Your task to perform on an android device: What's the top post on reddit today? Image 0: 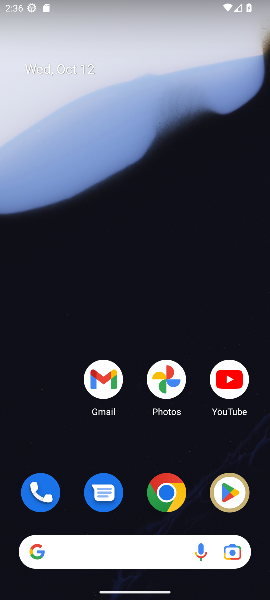
Step 0: click (165, 500)
Your task to perform on an android device: What's the top post on reddit today? Image 1: 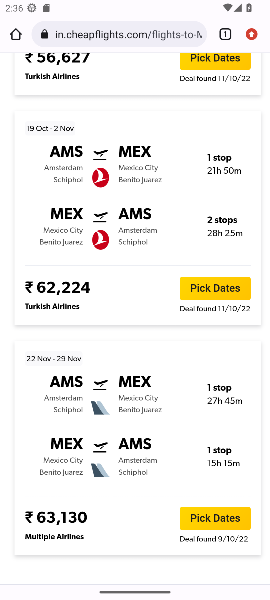
Step 1: click (99, 31)
Your task to perform on an android device: What's the top post on reddit today? Image 2: 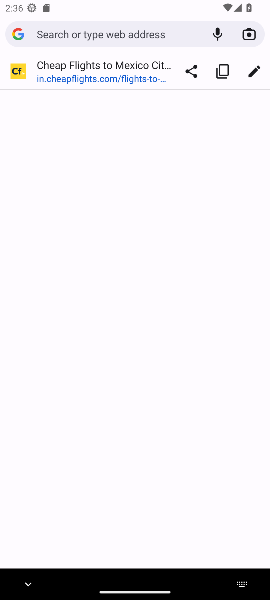
Step 2: type "the top post on reddit today"
Your task to perform on an android device: What's the top post on reddit today? Image 3: 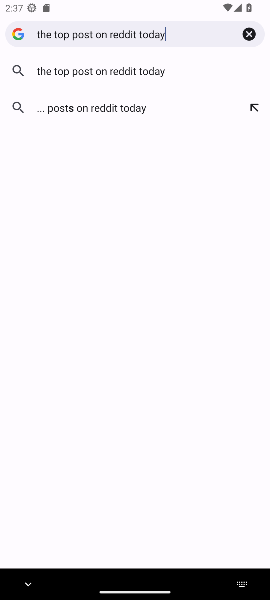
Step 3: press home button
Your task to perform on an android device: What's the top post on reddit today? Image 4: 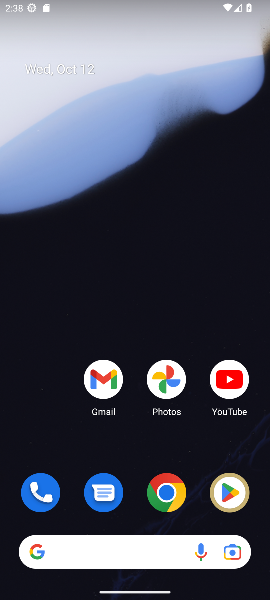
Step 4: click (167, 494)
Your task to perform on an android device: What's the top post on reddit today? Image 5: 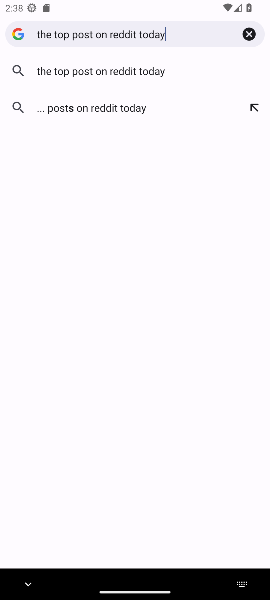
Step 5: click (113, 111)
Your task to perform on an android device: What's the top post on reddit today? Image 6: 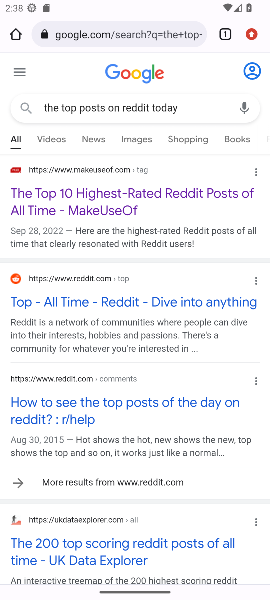
Step 6: click (65, 303)
Your task to perform on an android device: What's the top post on reddit today? Image 7: 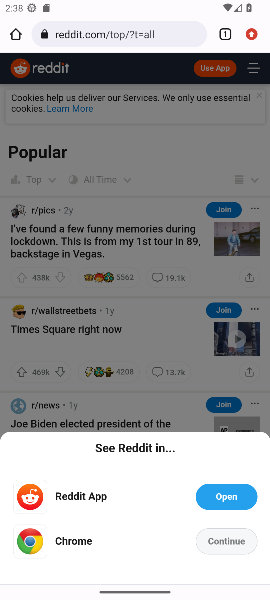
Step 7: drag from (143, 389) to (141, 169)
Your task to perform on an android device: What's the top post on reddit today? Image 8: 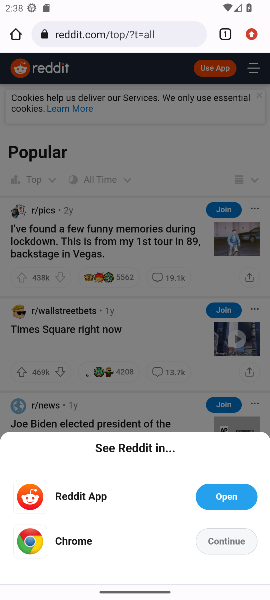
Step 8: press back button
Your task to perform on an android device: What's the top post on reddit today? Image 9: 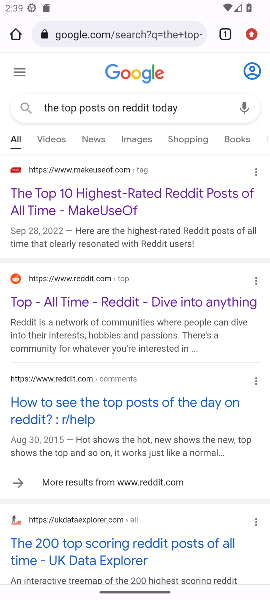
Step 9: click (96, 196)
Your task to perform on an android device: What's the top post on reddit today? Image 10: 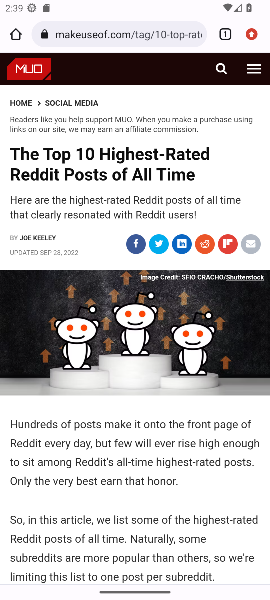
Step 10: task complete